Your task to perform on an android device: Open Reddit.com Image 0: 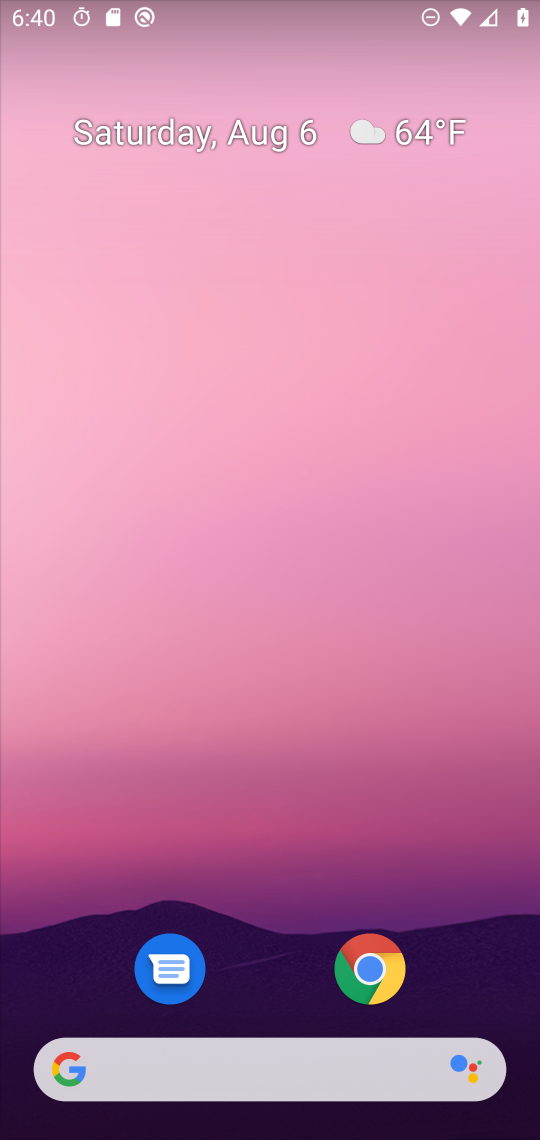
Step 0: press home button
Your task to perform on an android device: Open Reddit.com Image 1: 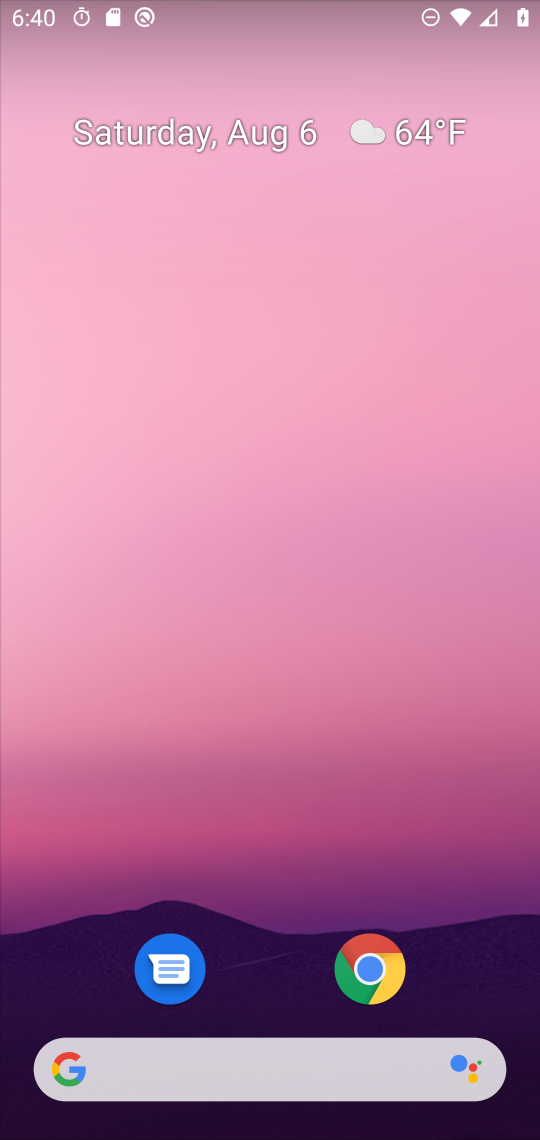
Step 1: click (74, 1077)
Your task to perform on an android device: Open Reddit.com Image 2: 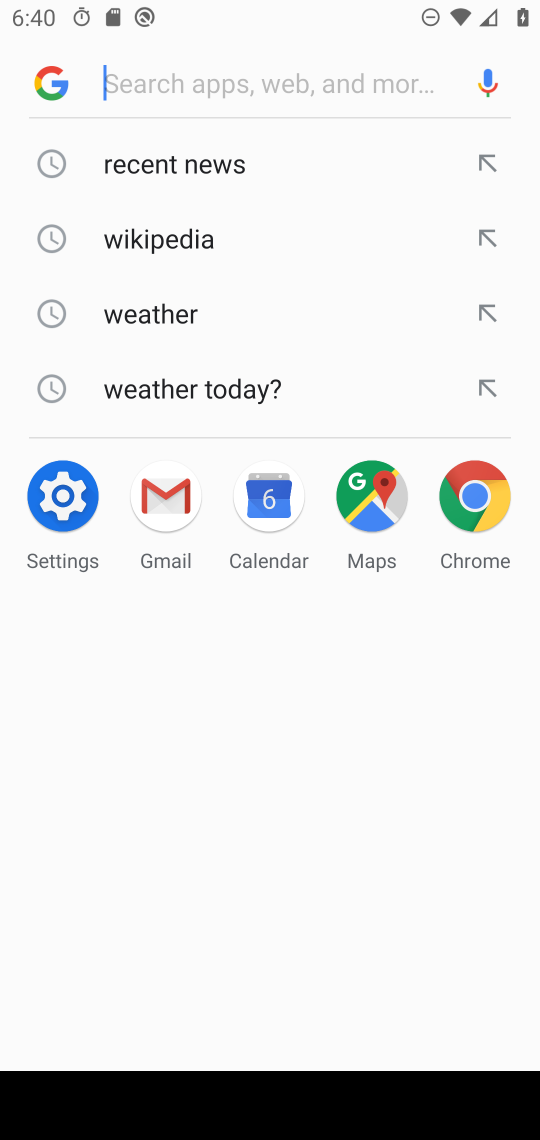
Step 2: type " Reddit.com"
Your task to perform on an android device: Open Reddit.com Image 3: 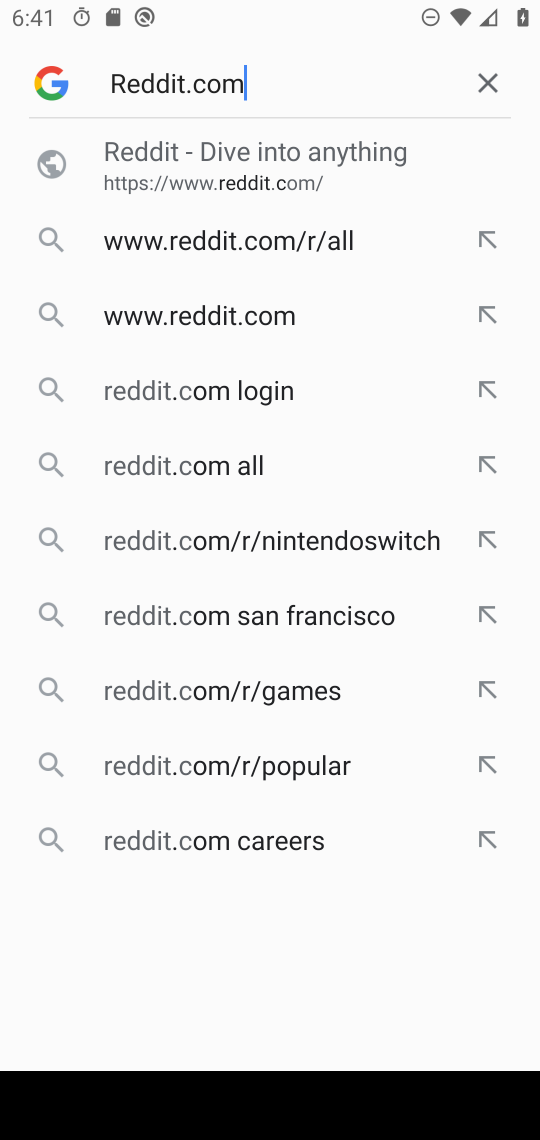
Step 3: press enter
Your task to perform on an android device: Open Reddit.com Image 4: 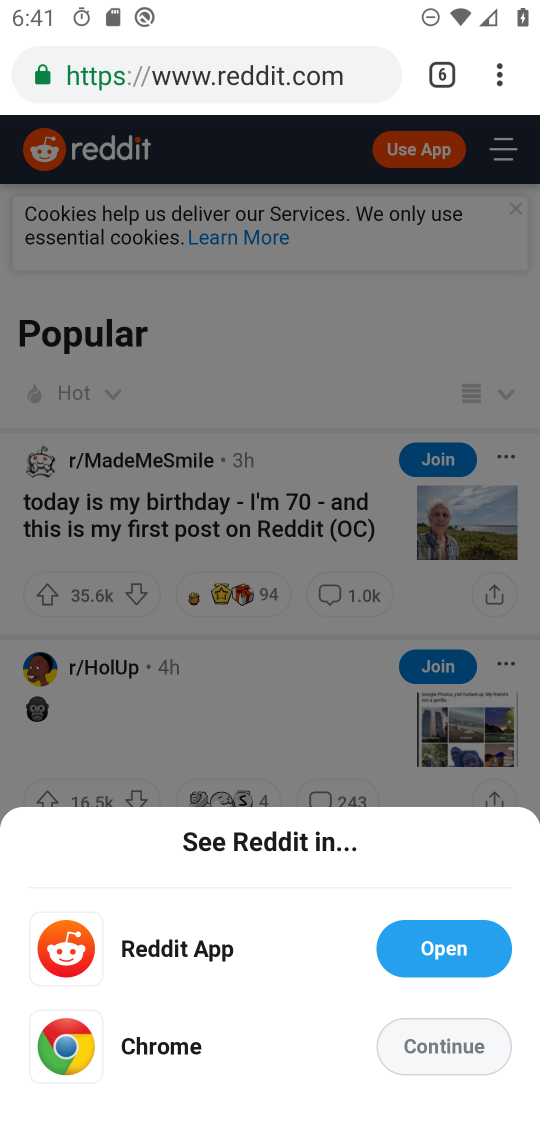
Step 4: task complete